Your task to perform on an android device: When is my next appointment? Image 0: 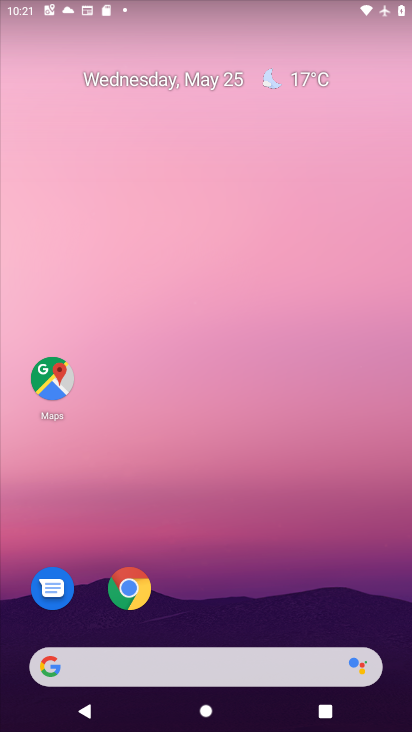
Step 0: drag from (383, 605) to (382, 190)
Your task to perform on an android device: When is my next appointment? Image 1: 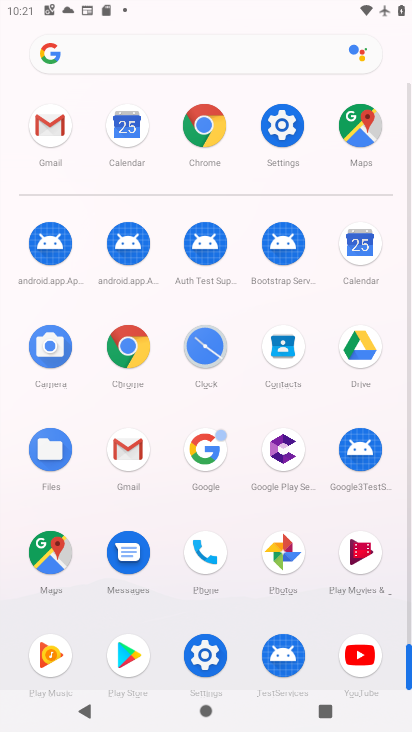
Step 1: click (363, 259)
Your task to perform on an android device: When is my next appointment? Image 2: 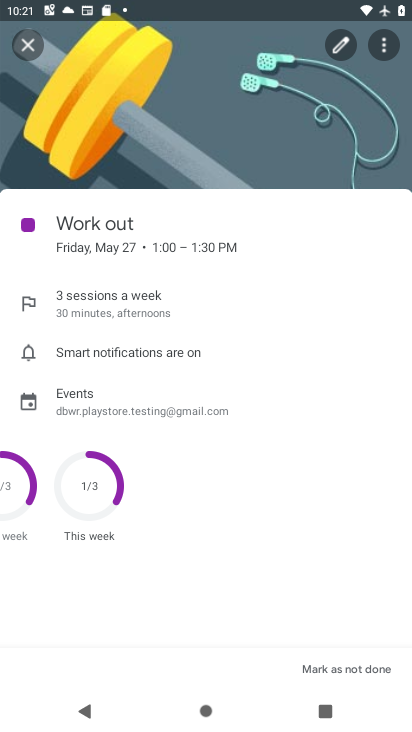
Step 2: task complete